Your task to perform on an android device: Do I have any events today? Image 0: 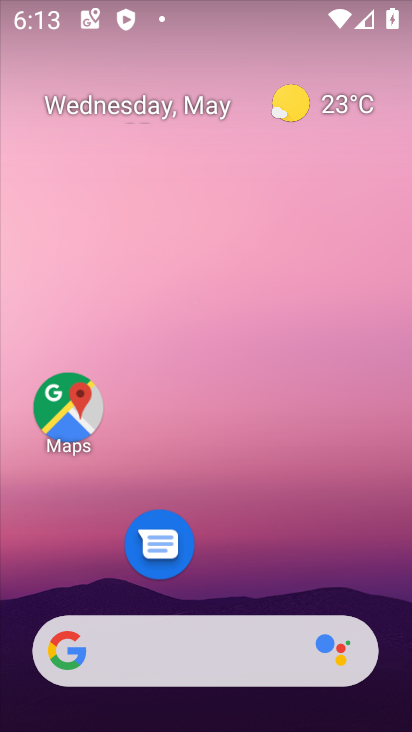
Step 0: drag from (256, 550) to (173, 52)
Your task to perform on an android device: Do I have any events today? Image 1: 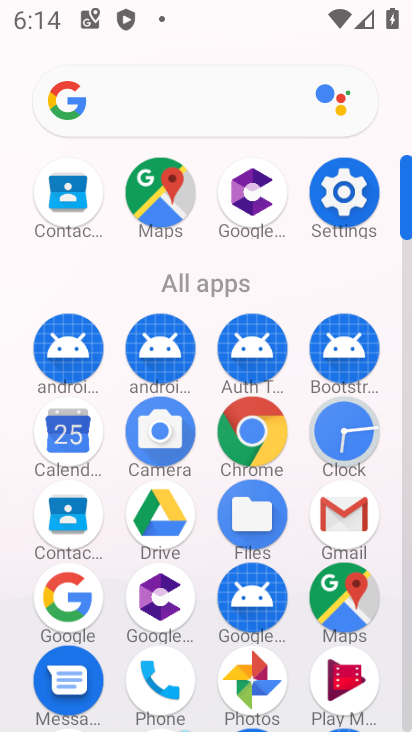
Step 1: click (75, 435)
Your task to perform on an android device: Do I have any events today? Image 2: 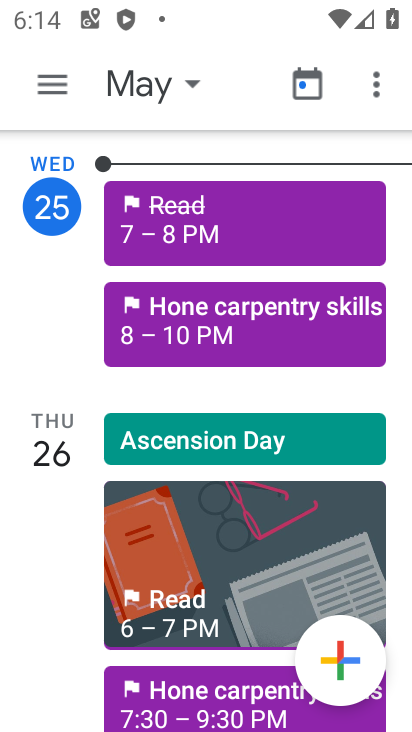
Step 2: click (55, 81)
Your task to perform on an android device: Do I have any events today? Image 3: 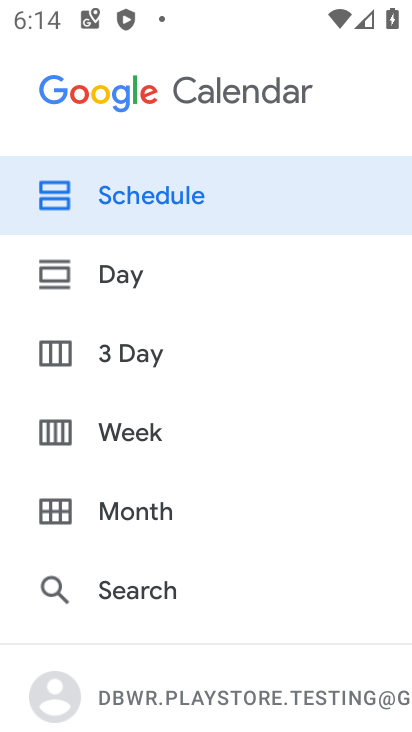
Step 3: click (100, 269)
Your task to perform on an android device: Do I have any events today? Image 4: 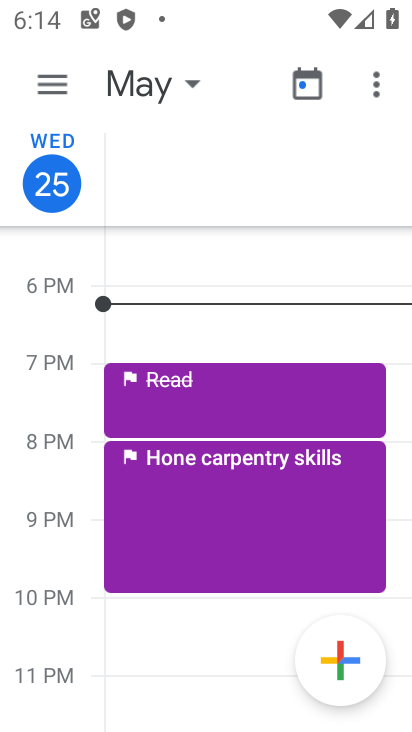
Step 4: task complete